Your task to perform on an android device: Open calendar and show me the fourth week of next month Image 0: 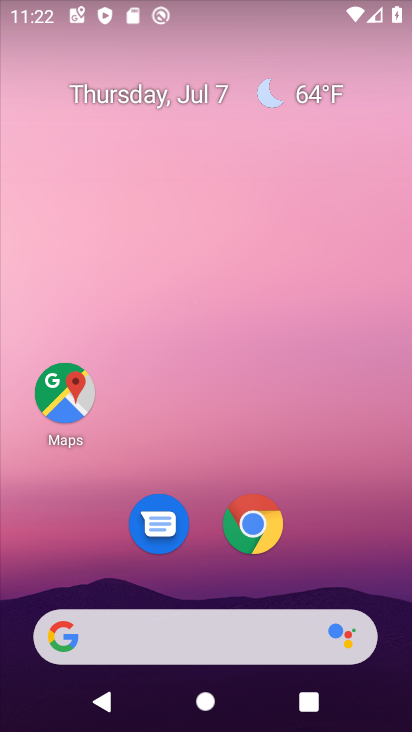
Step 0: drag from (260, 434) to (316, 60)
Your task to perform on an android device: Open calendar and show me the fourth week of next month Image 1: 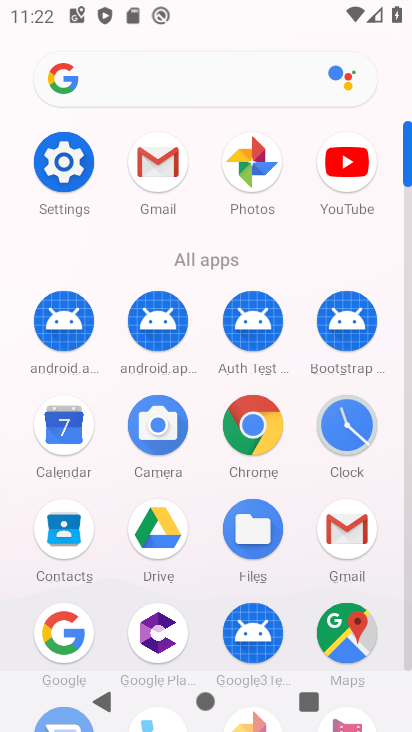
Step 1: click (63, 433)
Your task to perform on an android device: Open calendar and show me the fourth week of next month Image 2: 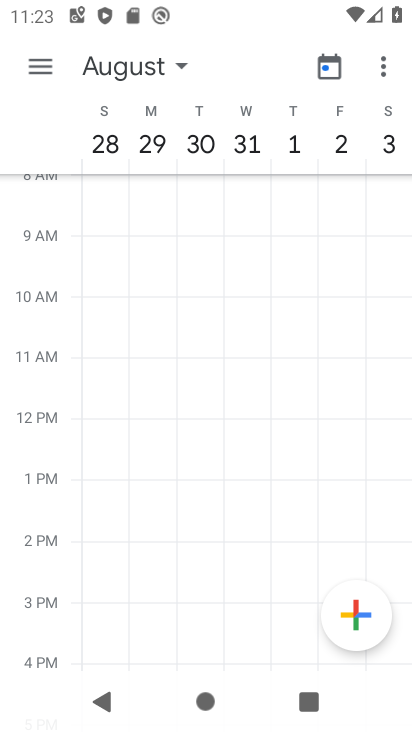
Step 2: task complete